Your task to perform on an android device: turn on translation in the chrome app Image 0: 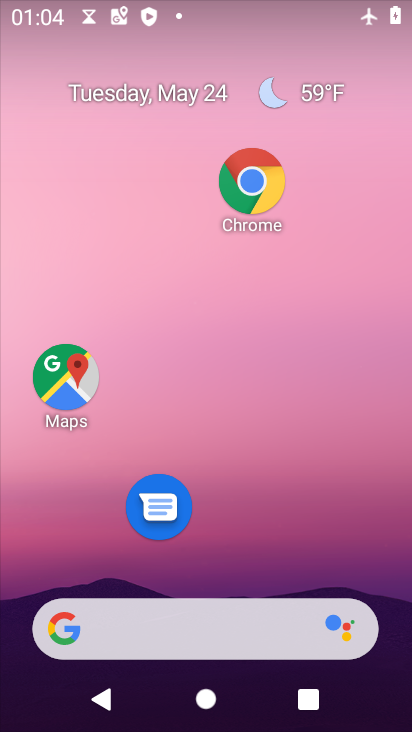
Step 0: click (256, 179)
Your task to perform on an android device: turn on translation in the chrome app Image 1: 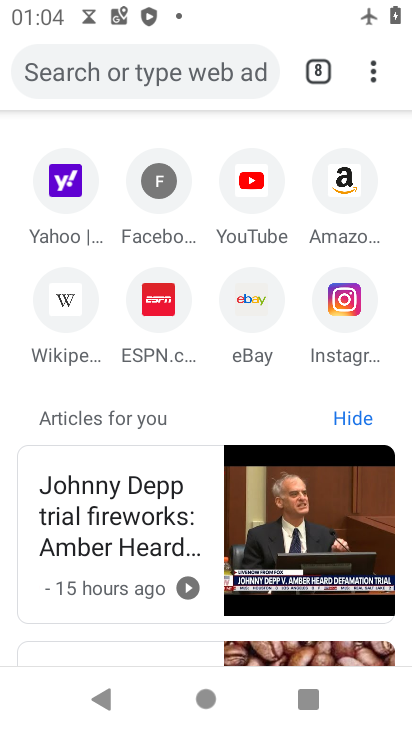
Step 1: click (375, 67)
Your task to perform on an android device: turn on translation in the chrome app Image 2: 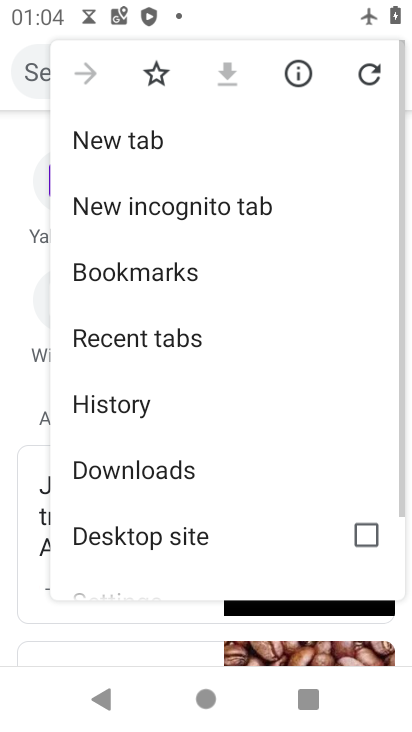
Step 2: drag from (238, 479) to (291, 157)
Your task to perform on an android device: turn on translation in the chrome app Image 3: 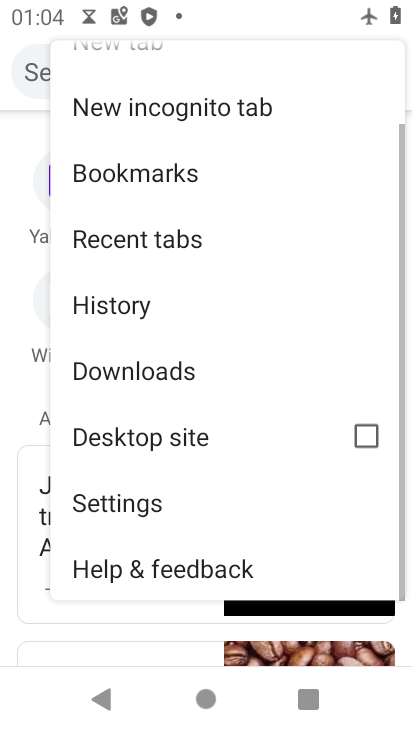
Step 3: click (160, 494)
Your task to perform on an android device: turn on translation in the chrome app Image 4: 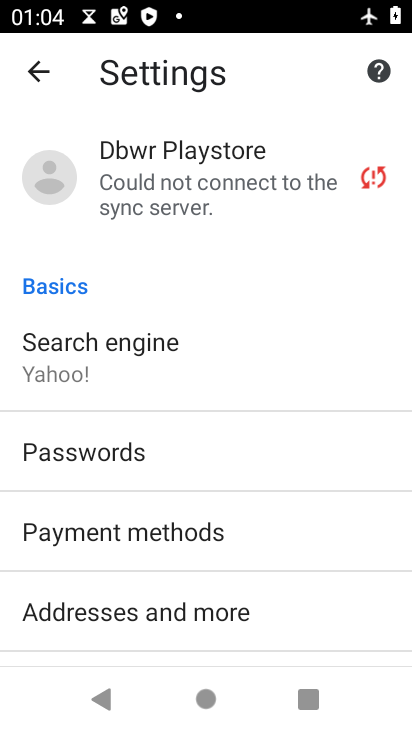
Step 4: drag from (243, 567) to (275, 280)
Your task to perform on an android device: turn on translation in the chrome app Image 5: 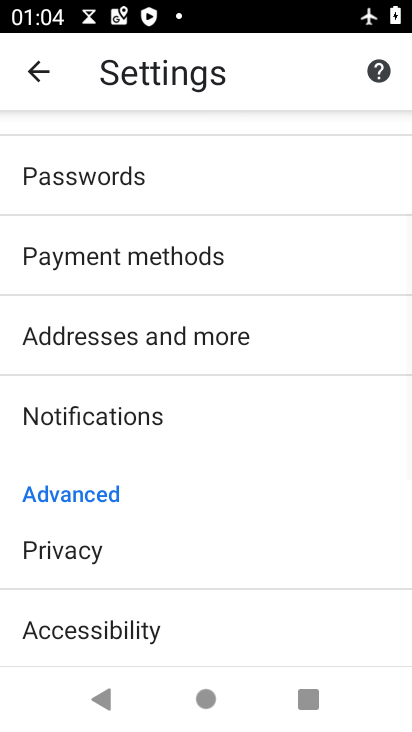
Step 5: drag from (255, 578) to (301, 225)
Your task to perform on an android device: turn on translation in the chrome app Image 6: 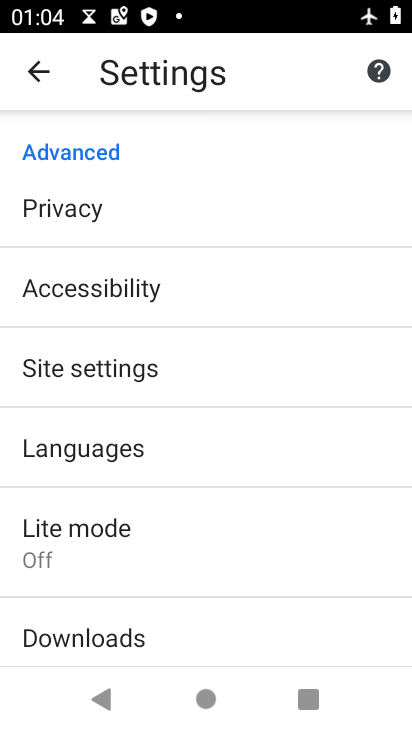
Step 6: click (144, 451)
Your task to perform on an android device: turn on translation in the chrome app Image 7: 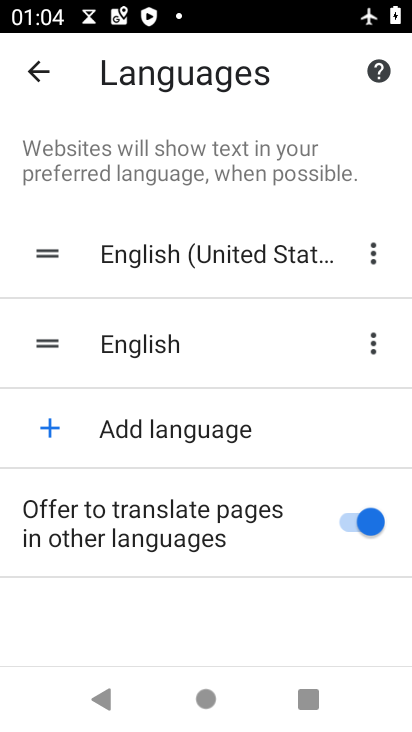
Step 7: task complete